Your task to perform on an android device: all mails in gmail Image 0: 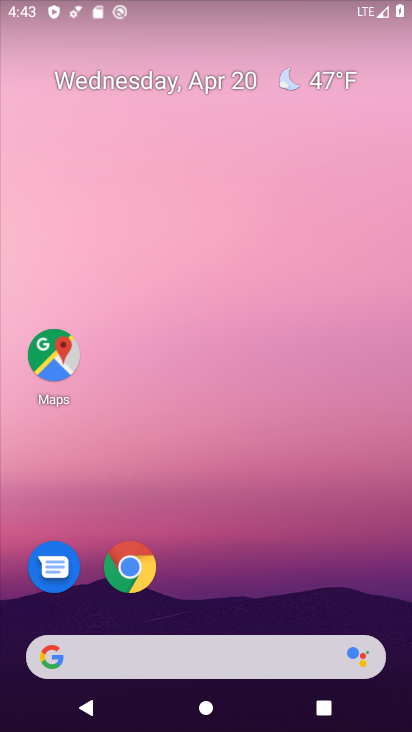
Step 0: drag from (296, 516) to (218, 34)
Your task to perform on an android device: all mails in gmail Image 1: 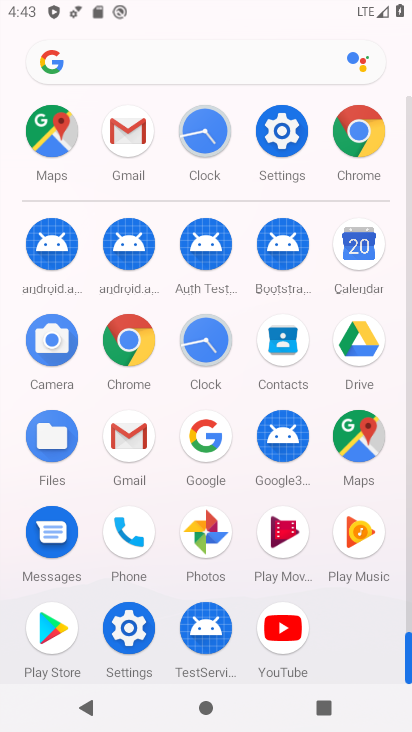
Step 1: click (129, 430)
Your task to perform on an android device: all mails in gmail Image 2: 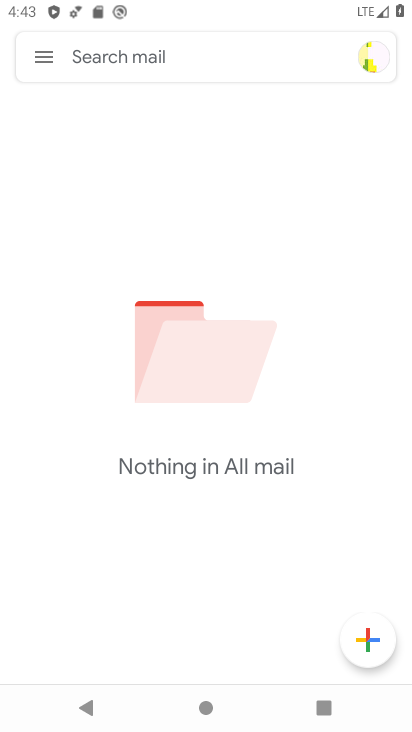
Step 2: click (47, 46)
Your task to perform on an android device: all mails in gmail Image 3: 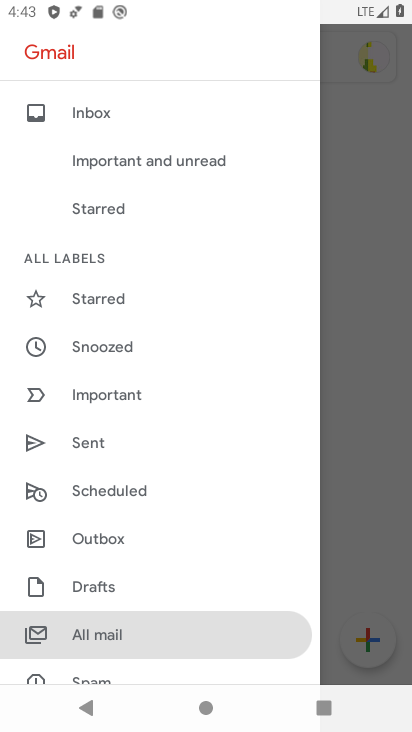
Step 3: drag from (236, 154) to (204, 526)
Your task to perform on an android device: all mails in gmail Image 4: 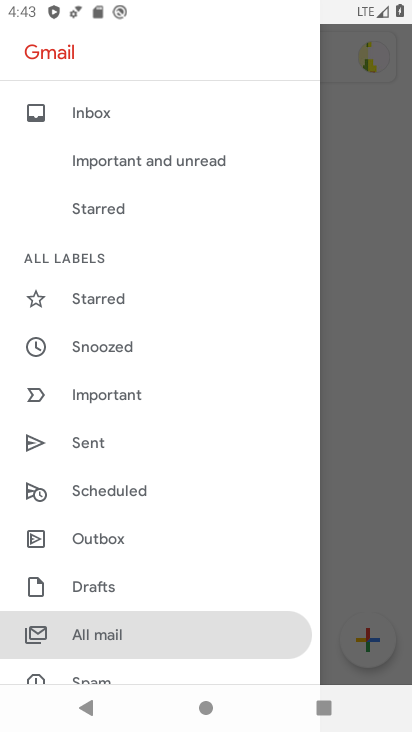
Step 4: click (117, 629)
Your task to perform on an android device: all mails in gmail Image 5: 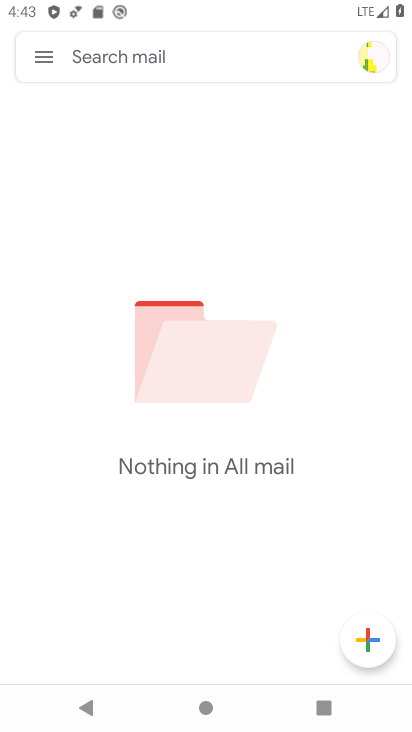
Step 5: task complete